Your task to perform on an android device: Is it going to rain today? Image 0: 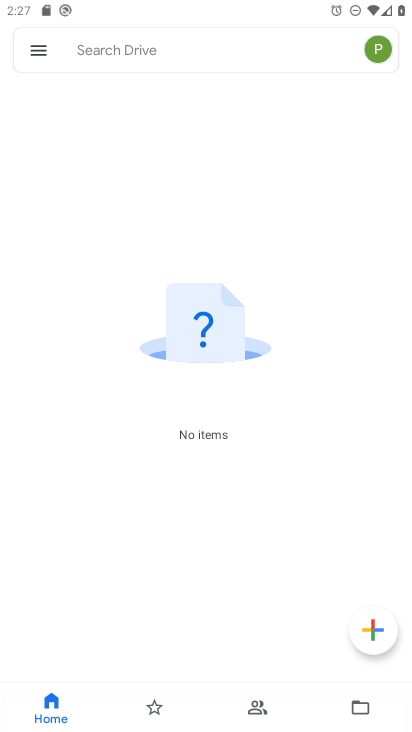
Step 0: press home button
Your task to perform on an android device: Is it going to rain today? Image 1: 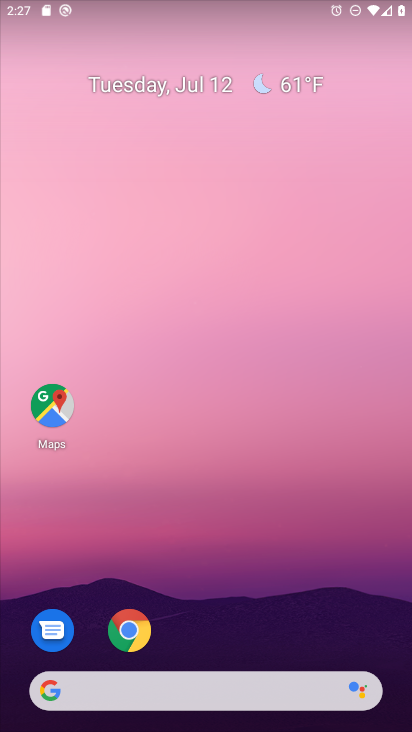
Step 1: drag from (245, 638) to (277, 158)
Your task to perform on an android device: Is it going to rain today? Image 2: 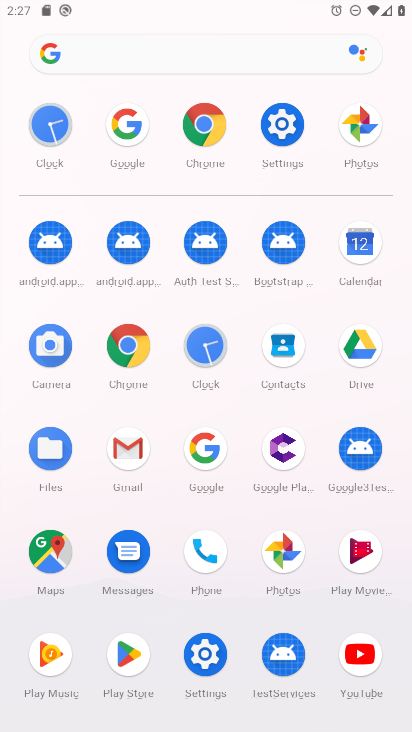
Step 2: click (207, 445)
Your task to perform on an android device: Is it going to rain today? Image 3: 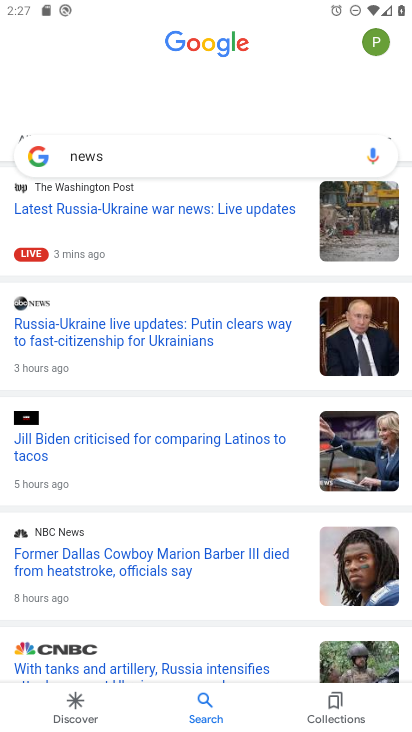
Step 3: click (143, 145)
Your task to perform on an android device: Is it going to rain today? Image 4: 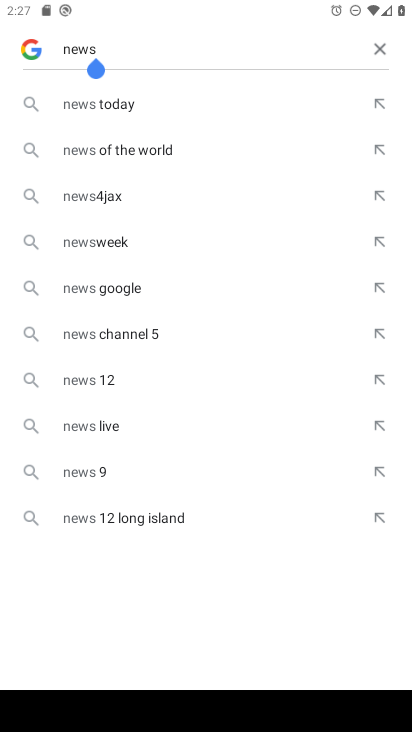
Step 4: click (378, 49)
Your task to perform on an android device: Is it going to rain today? Image 5: 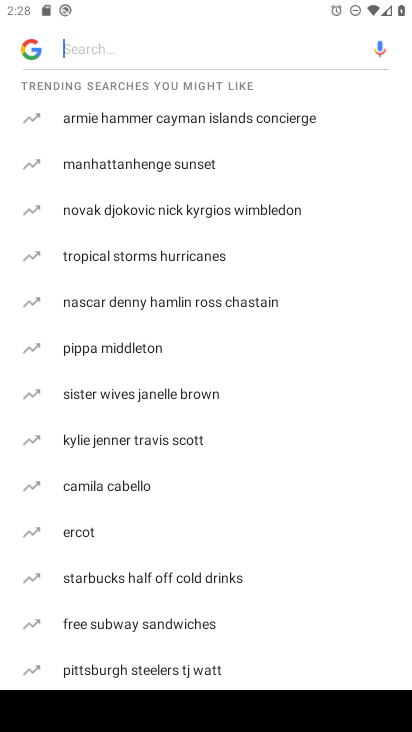
Step 5: type "weather"
Your task to perform on an android device: Is it going to rain today? Image 6: 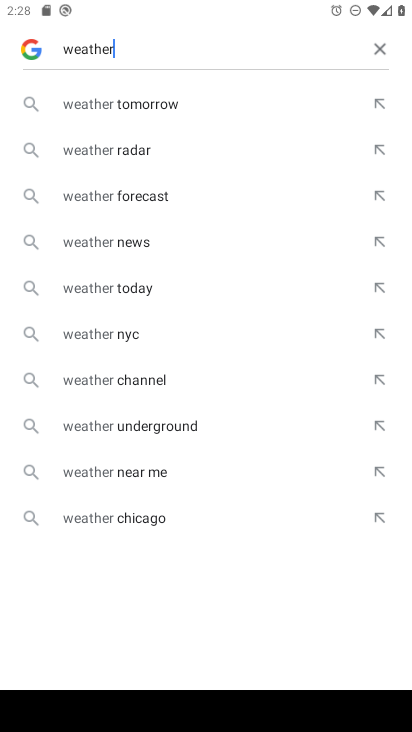
Step 6: click (137, 289)
Your task to perform on an android device: Is it going to rain today? Image 7: 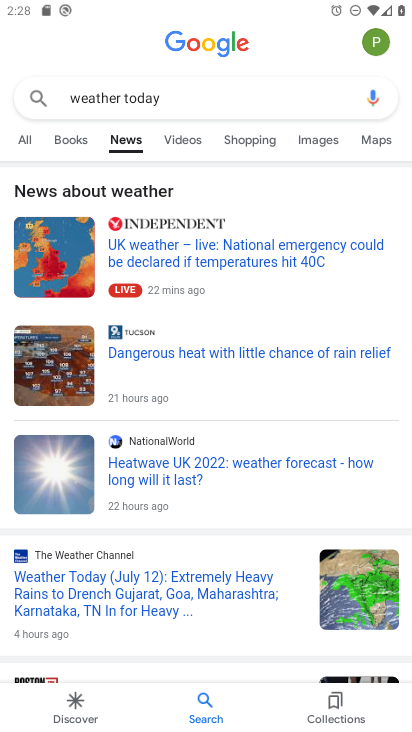
Step 7: click (37, 145)
Your task to perform on an android device: Is it going to rain today? Image 8: 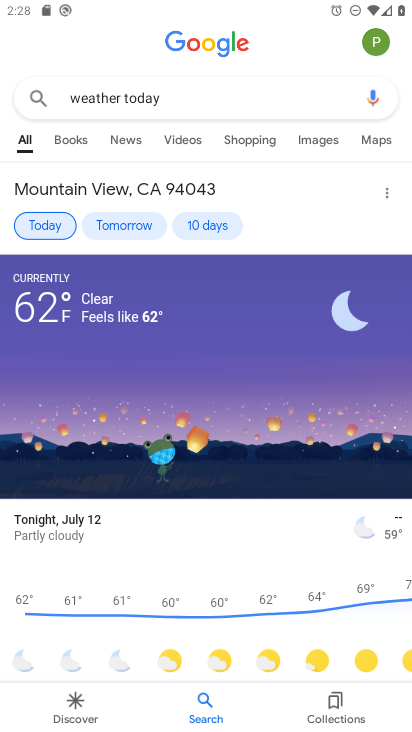
Step 8: task complete